Your task to perform on an android device: Open Google Maps Image 0: 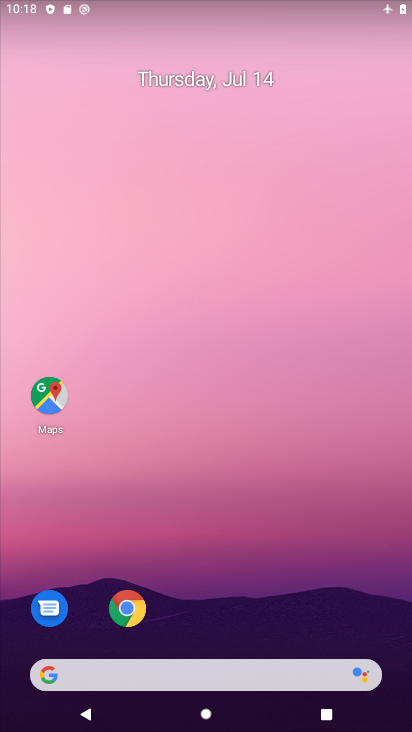
Step 0: click (57, 408)
Your task to perform on an android device: Open Google Maps Image 1: 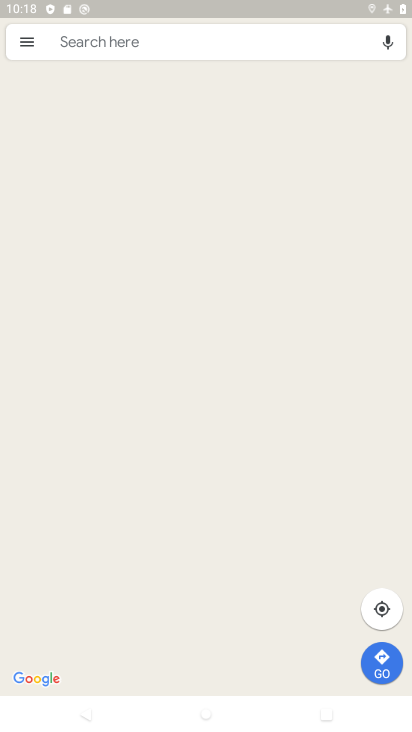
Step 1: task complete